Your task to perform on an android device: turn off notifications settings in the gmail app Image 0: 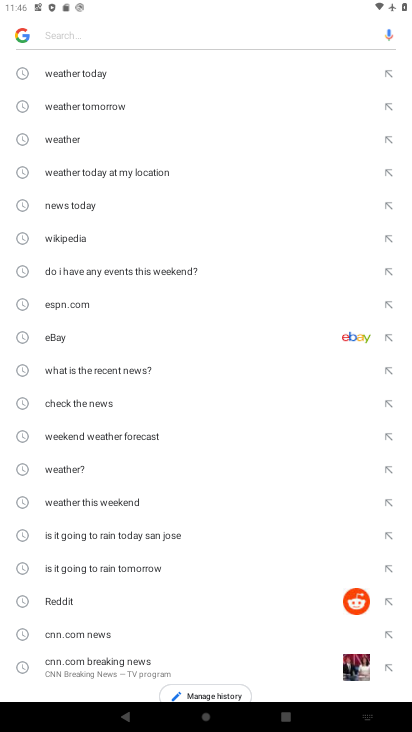
Step 0: press back button
Your task to perform on an android device: turn off notifications settings in the gmail app Image 1: 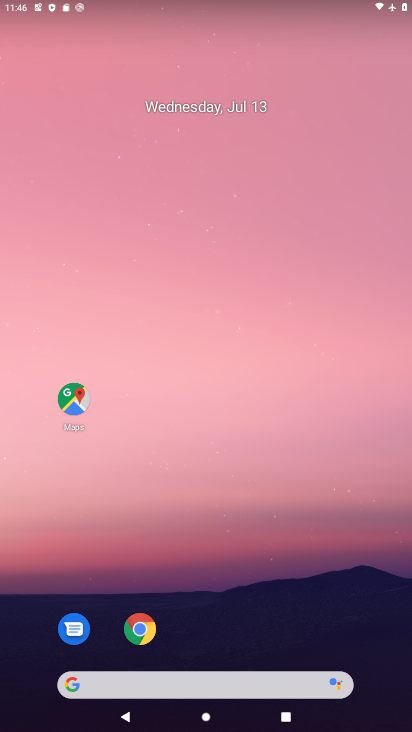
Step 1: drag from (245, 699) to (191, 189)
Your task to perform on an android device: turn off notifications settings in the gmail app Image 2: 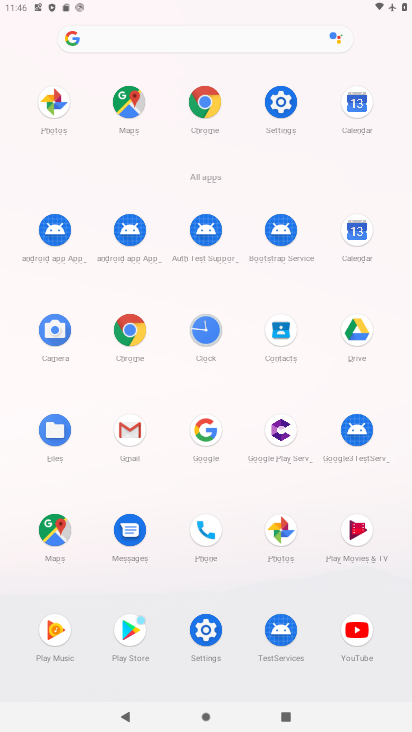
Step 2: click (128, 445)
Your task to perform on an android device: turn off notifications settings in the gmail app Image 3: 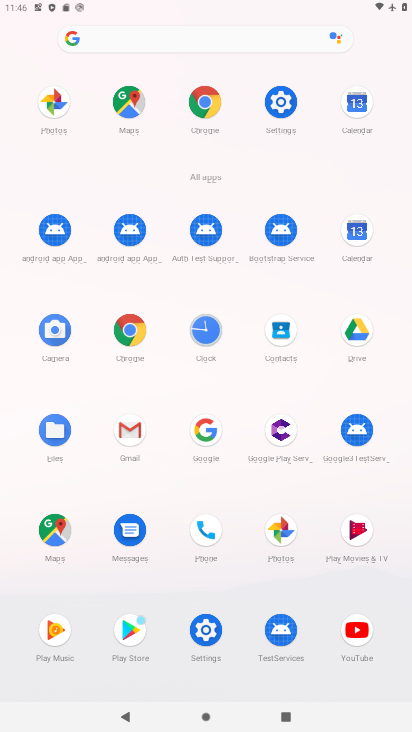
Step 3: click (128, 438)
Your task to perform on an android device: turn off notifications settings in the gmail app Image 4: 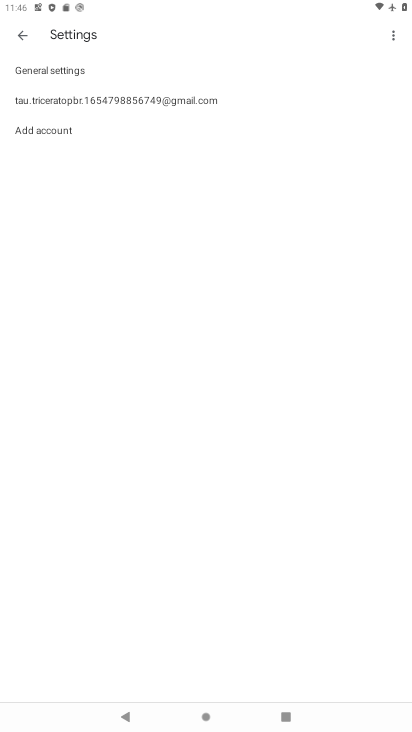
Step 4: click (81, 90)
Your task to perform on an android device: turn off notifications settings in the gmail app Image 5: 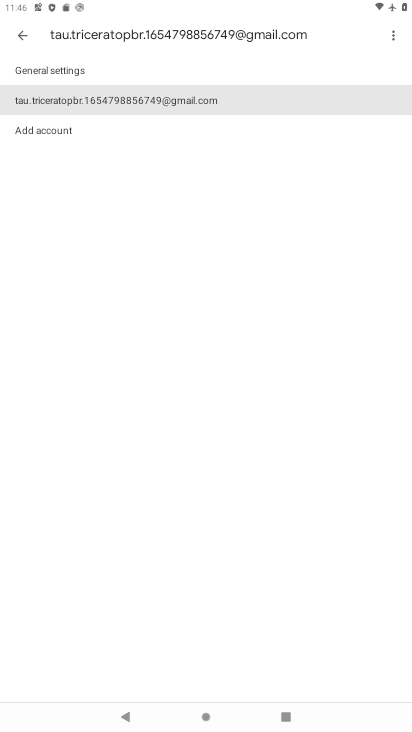
Step 5: click (85, 102)
Your task to perform on an android device: turn off notifications settings in the gmail app Image 6: 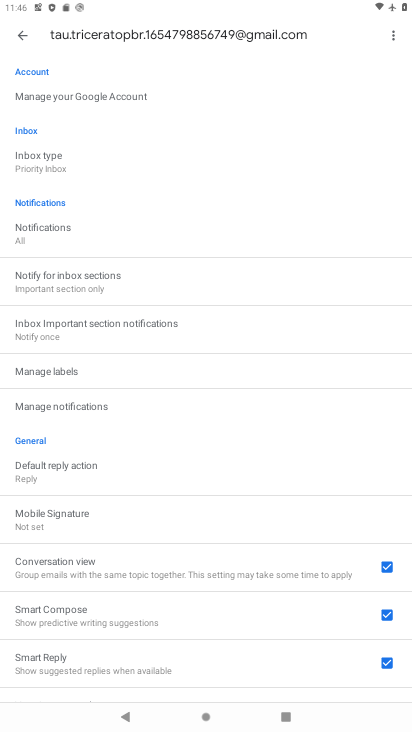
Step 6: click (37, 226)
Your task to perform on an android device: turn off notifications settings in the gmail app Image 7: 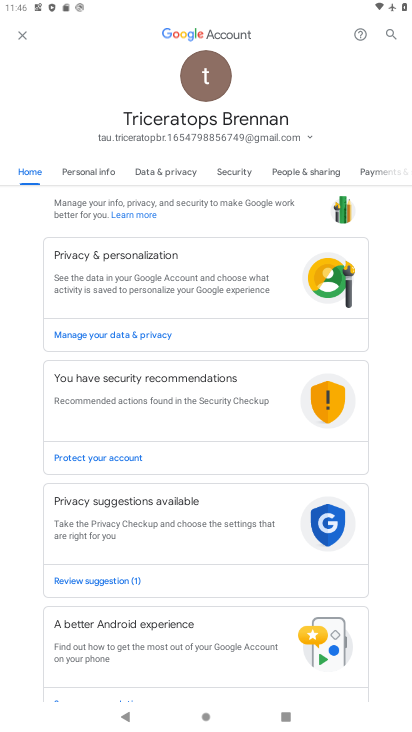
Step 7: click (19, 32)
Your task to perform on an android device: turn off notifications settings in the gmail app Image 8: 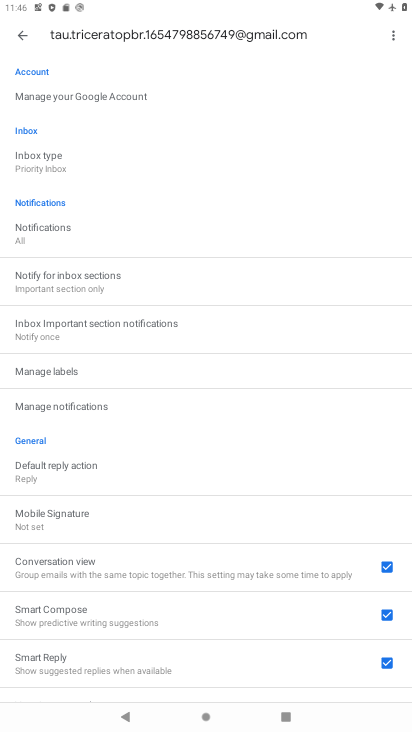
Step 8: click (23, 232)
Your task to perform on an android device: turn off notifications settings in the gmail app Image 9: 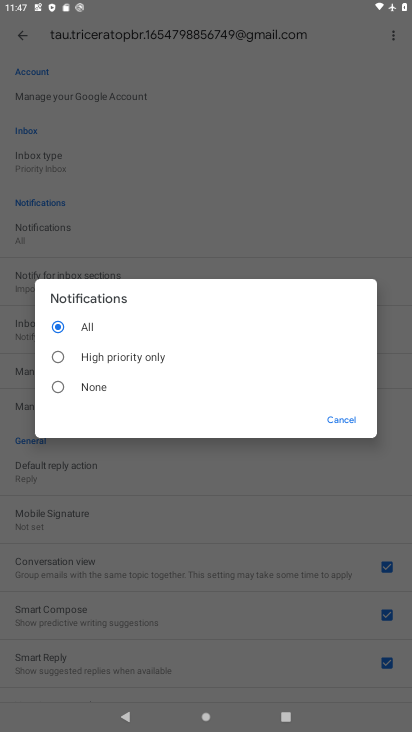
Step 9: click (48, 388)
Your task to perform on an android device: turn off notifications settings in the gmail app Image 10: 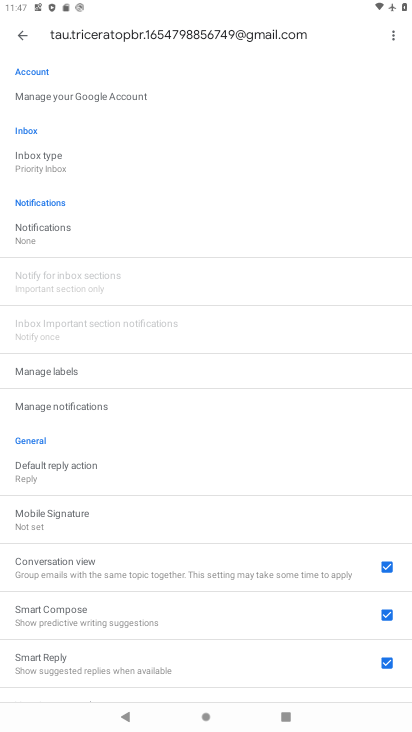
Step 10: task complete